Your task to perform on an android device: What is the capital of Italy? Image 0: 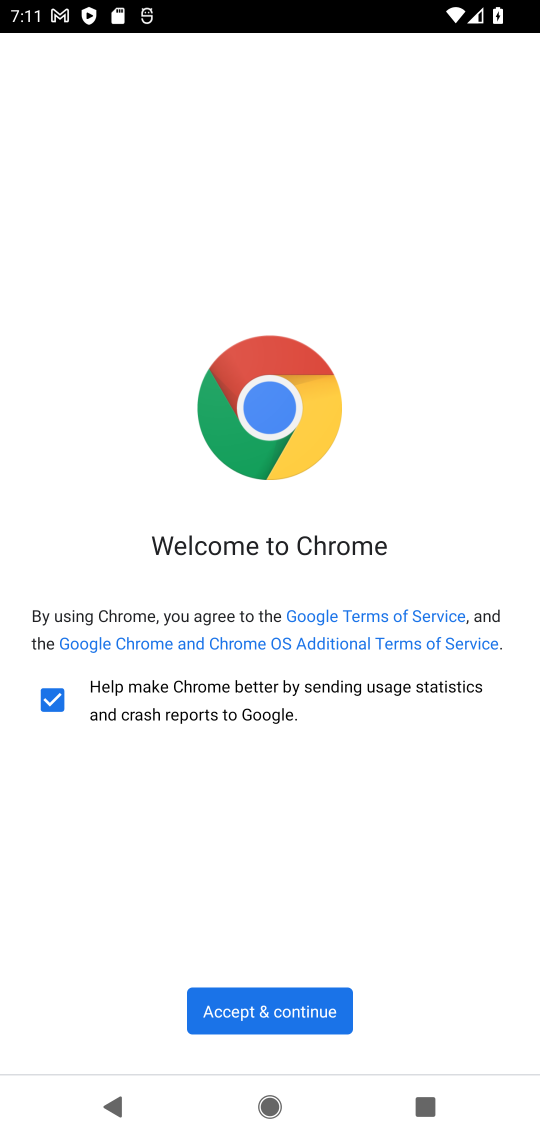
Step 0: press home button
Your task to perform on an android device: What is the capital of Italy? Image 1: 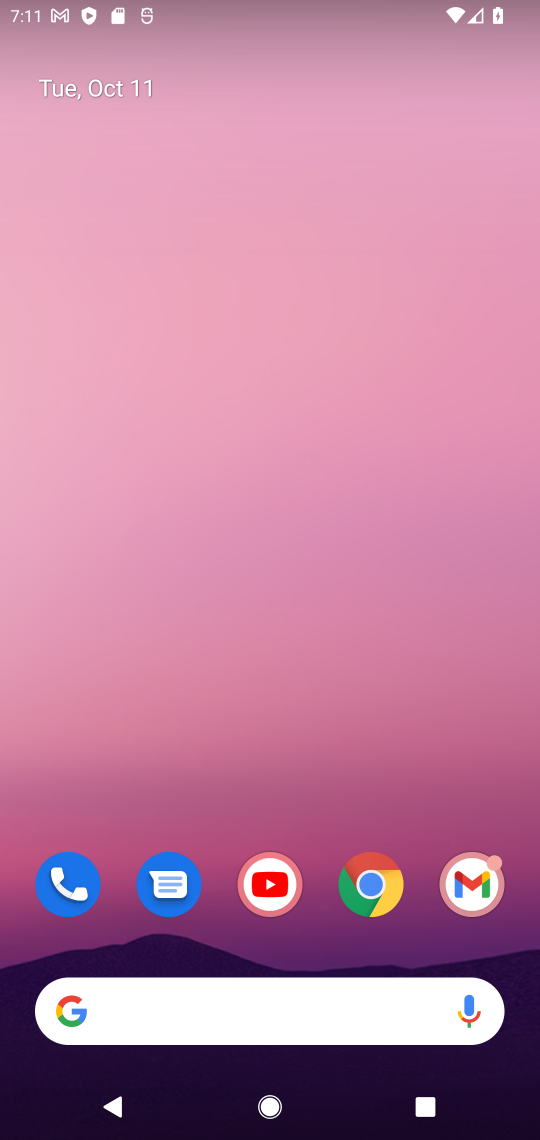
Step 1: click (363, 877)
Your task to perform on an android device: What is the capital of Italy? Image 2: 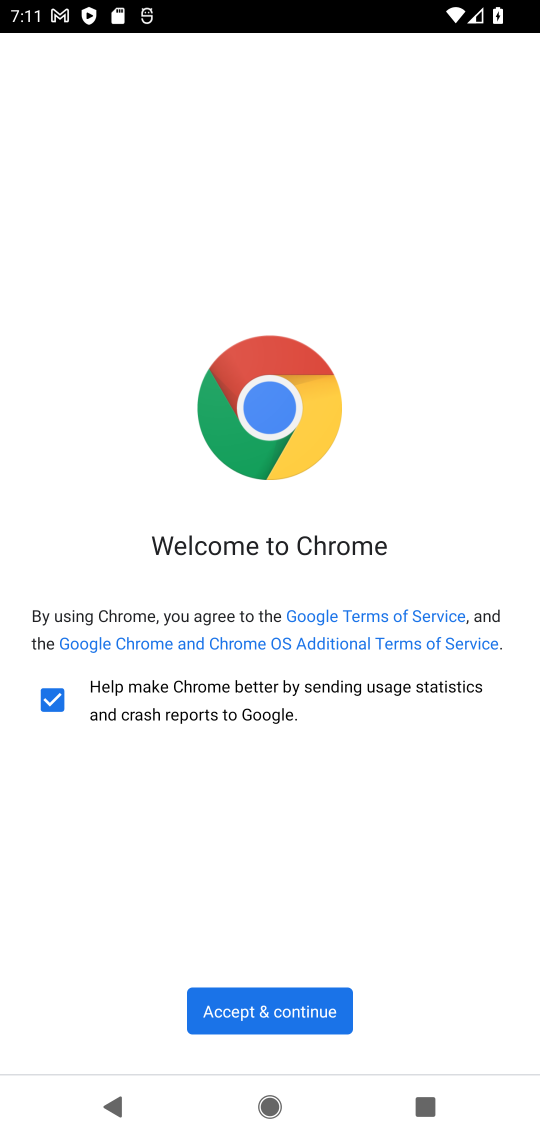
Step 2: click (273, 1009)
Your task to perform on an android device: What is the capital of Italy? Image 3: 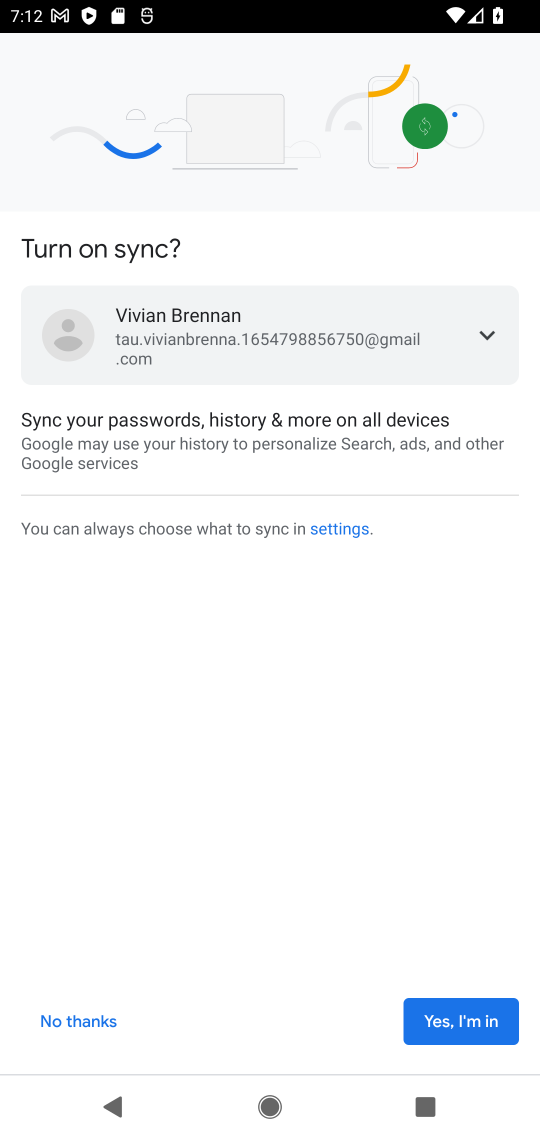
Step 3: click (493, 1014)
Your task to perform on an android device: What is the capital of Italy? Image 4: 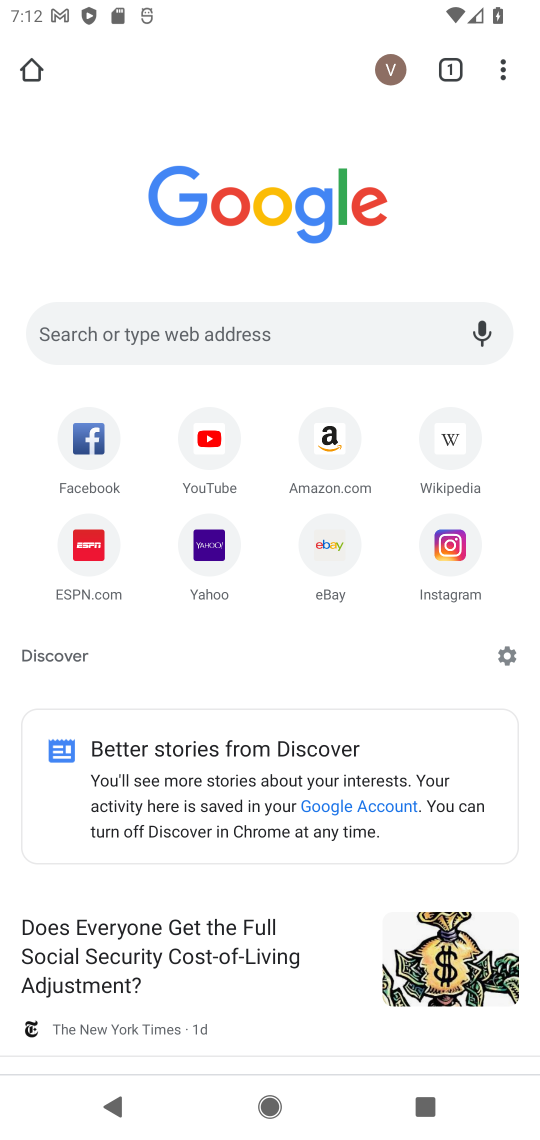
Step 4: click (298, 335)
Your task to perform on an android device: What is the capital of Italy? Image 5: 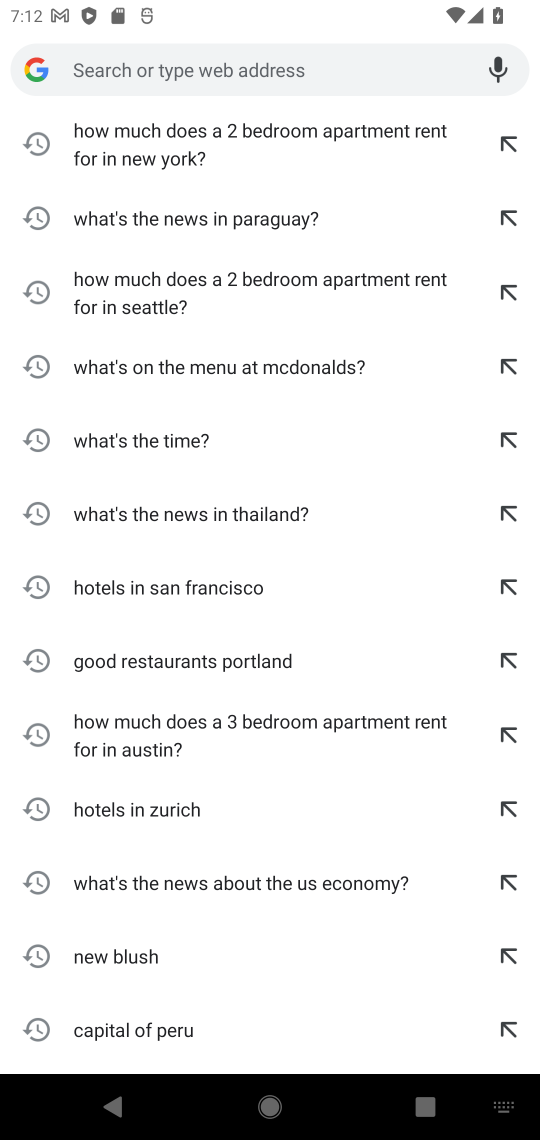
Step 5: type "capital of Italy"
Your task to perform on an android device: What is the capital of Italy? Image 6: 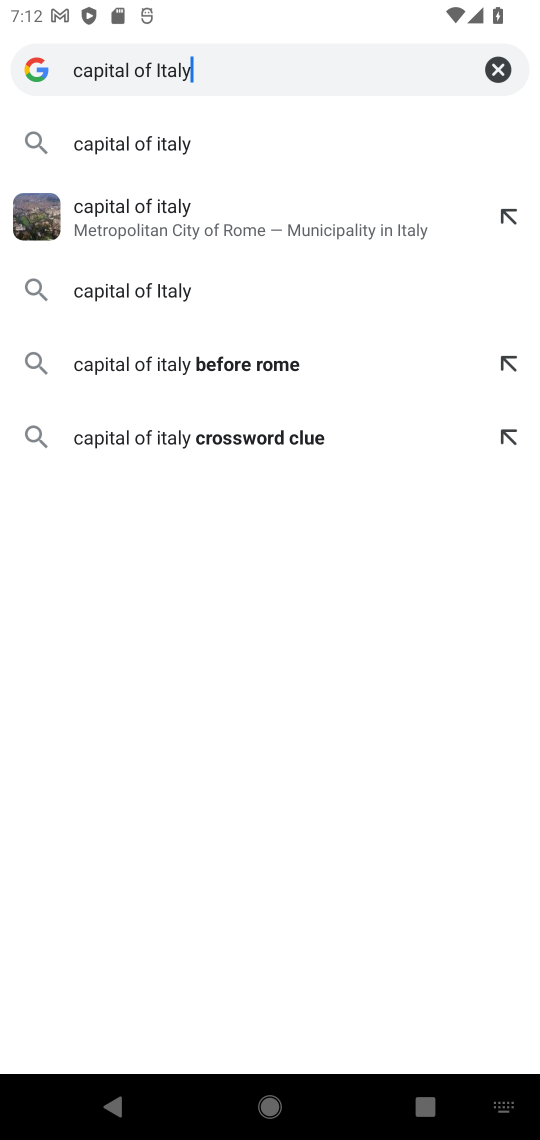
Step 6: click (264, 151)
Your task to perform on an android device: What is the capital of Italy? Image 7: 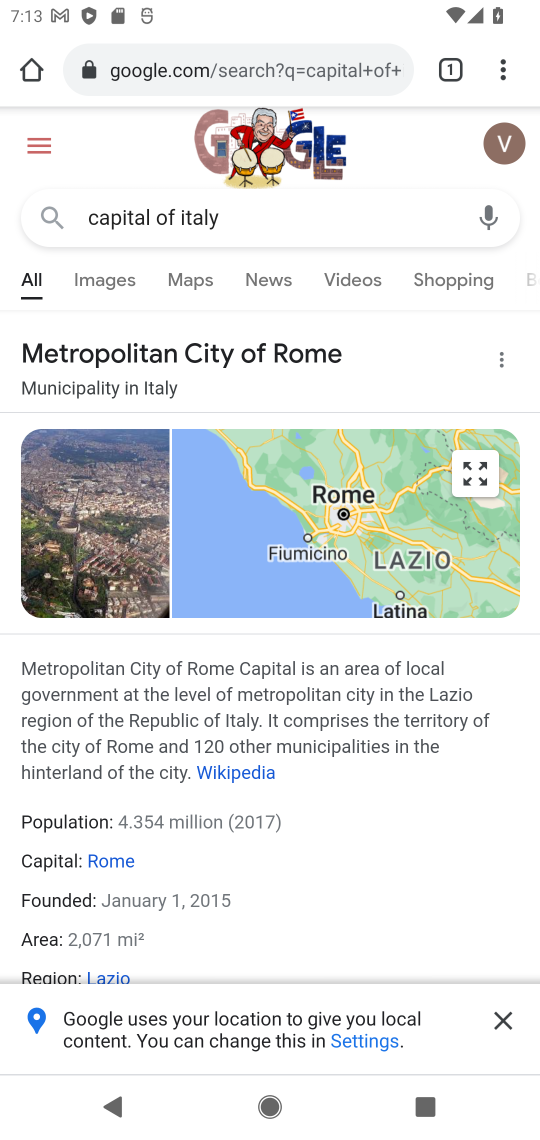
Step 7: drag from (453, 733) to (530, 484)
Your task to perform on an android device: What is the capital of Italy? Image 8: 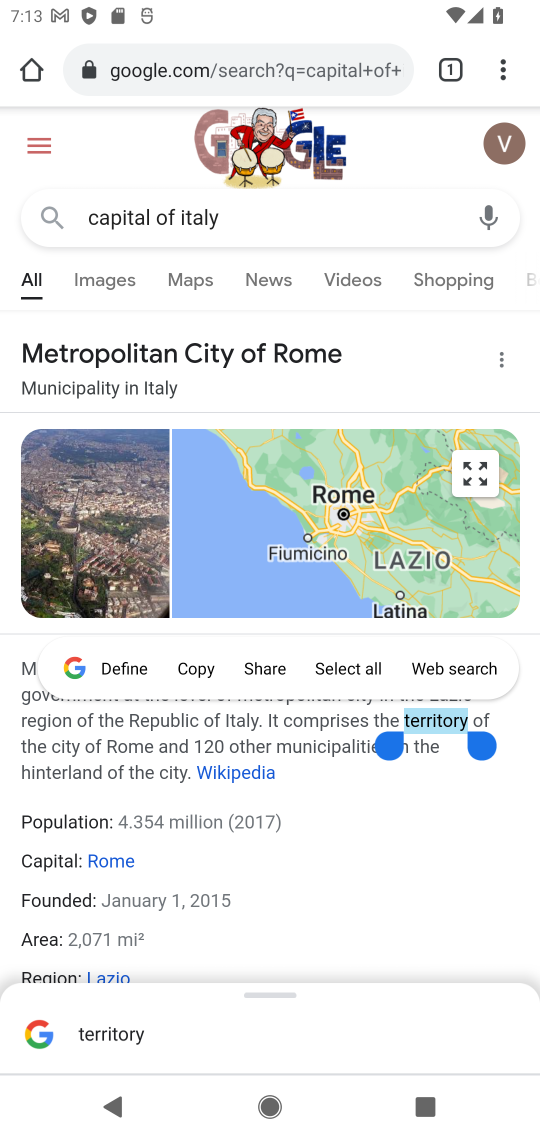
Step 8: click (379, 79)
Your task to perform on an android device: What is the capital of Italy? Image 9: 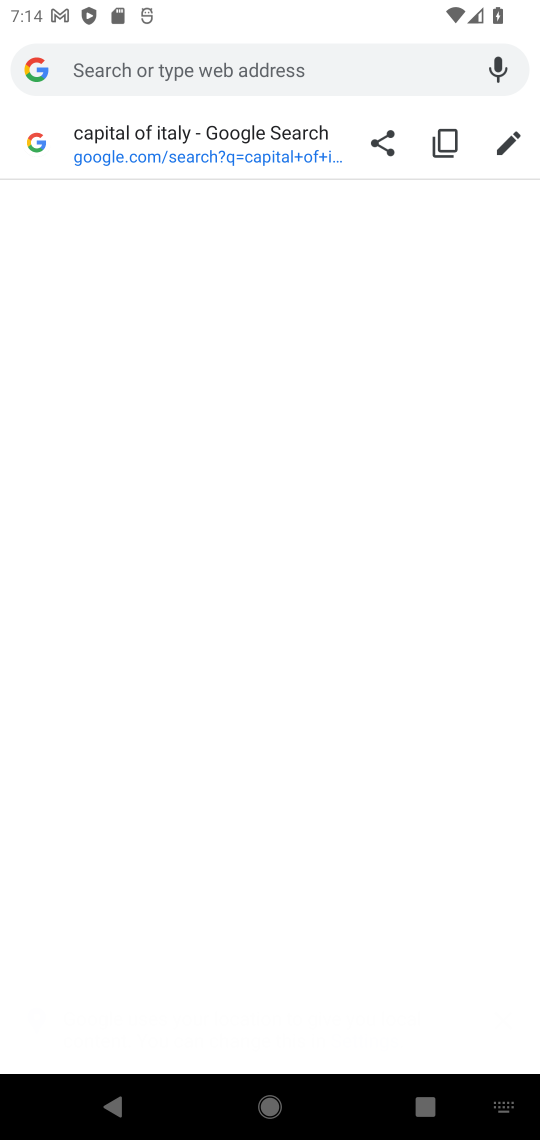
Step 9: type "capital of Italy"
Your task to perform on an android device: What is the capital of Italy? Image 10: 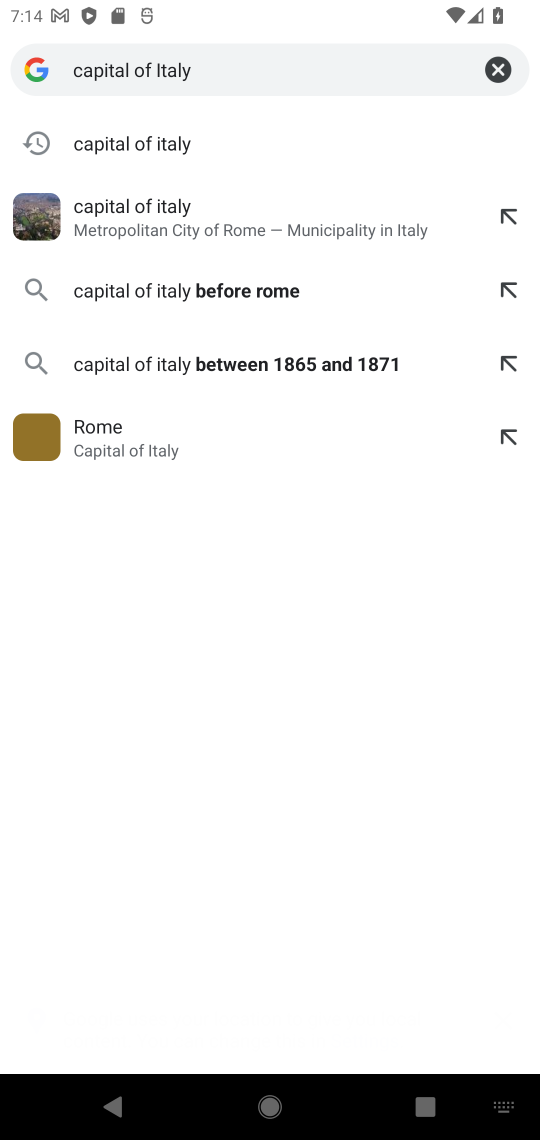
Step 10: click (122, 151)
Your task to perform on an android device: What is the capital of Italy? Image 11: 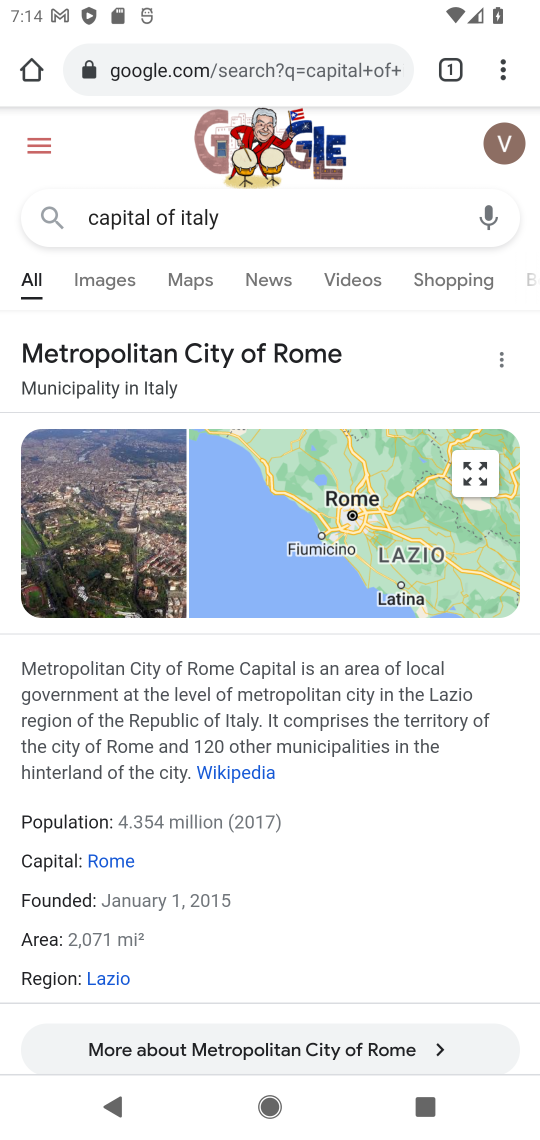
Step 11: task complete